Your task to perform on an android device: Search for good Greek restaurants Image 0: 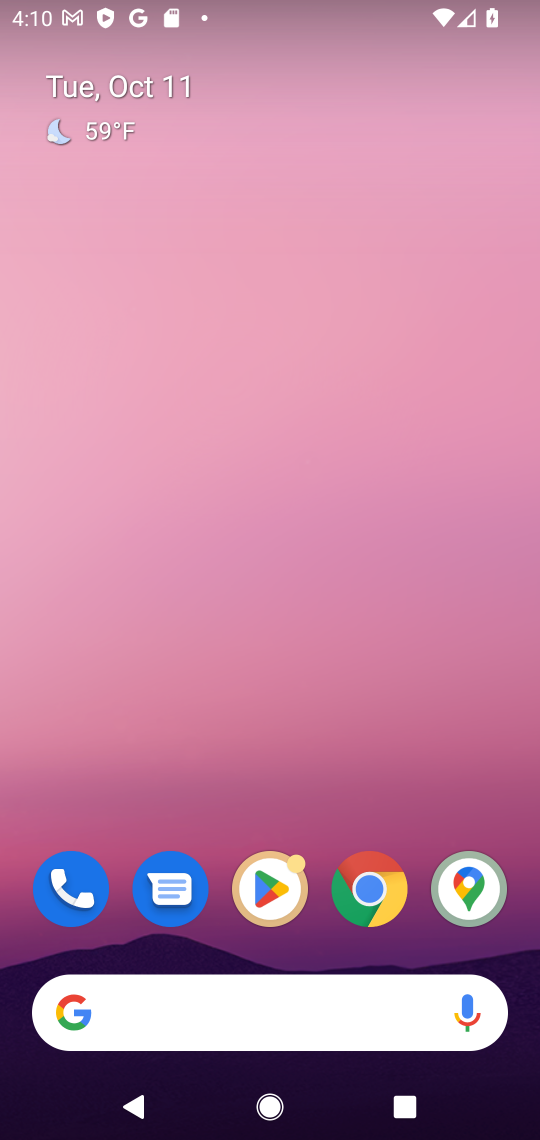
Step 0: click (249, 338)
Your task to perform on an android device: Search for good Greek restaurants Image 1: 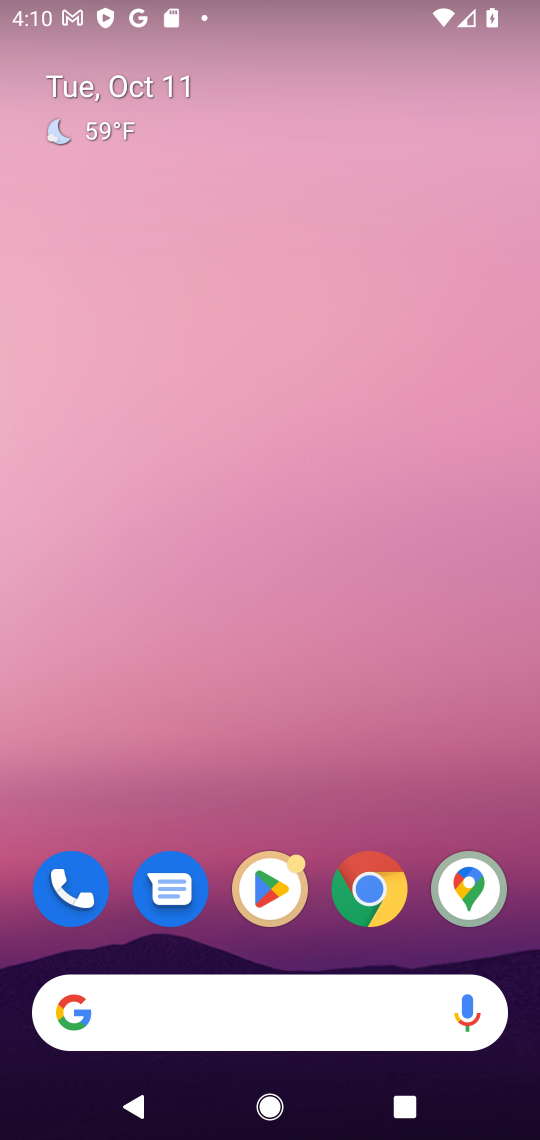
Step 1: click (273, 391)
Your task to perform on an android device: Search for good Greek restaurants Image 2: 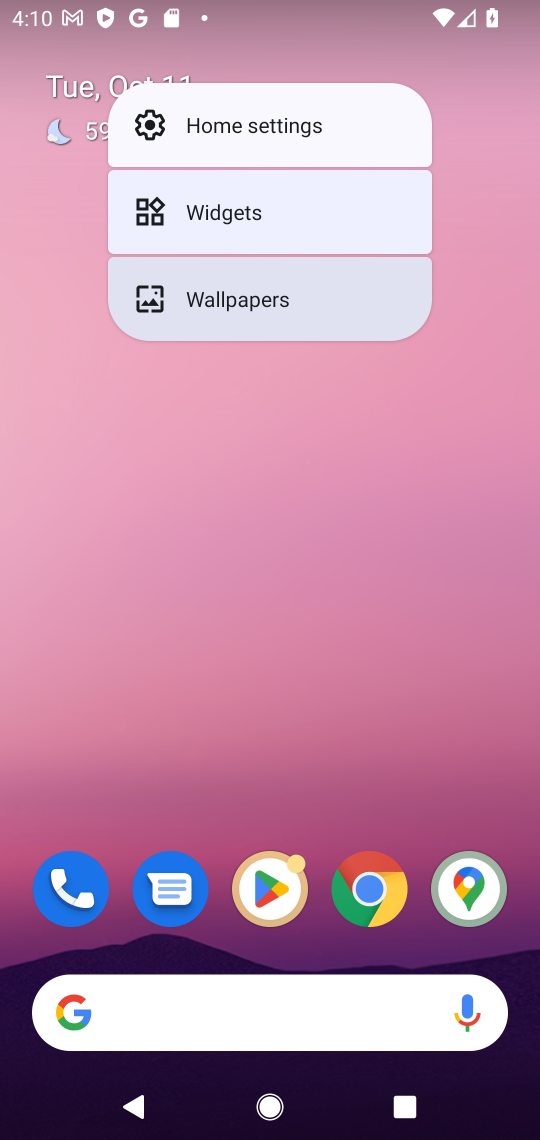
Step 2: click (291, 560)
Your task to perform on an android device: Search for good Greek restaurants Image 3: 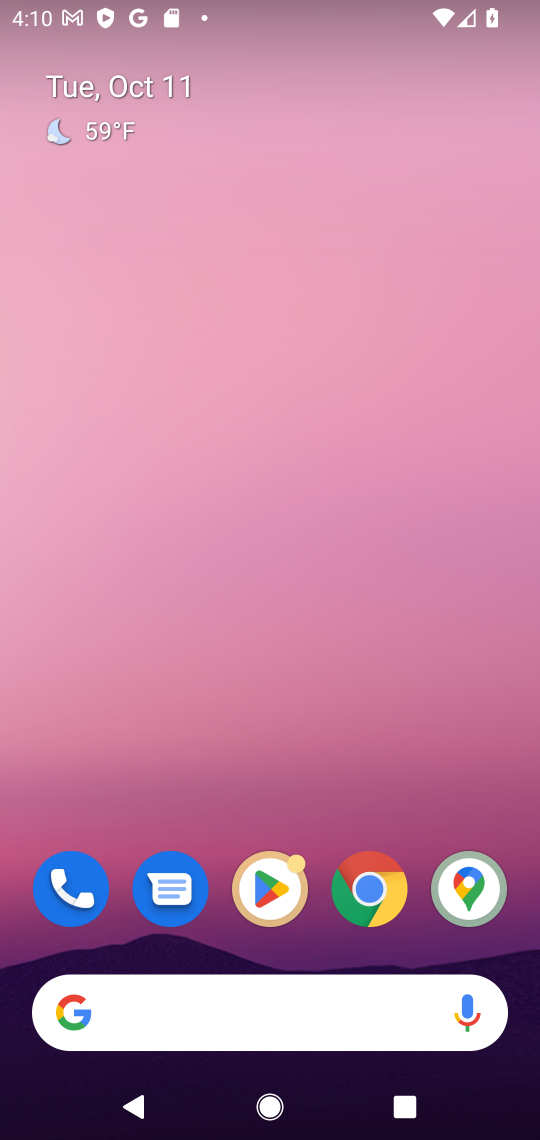
Step 3: drag from (247, 732) to (286, 236)
Your task to perform on an android device: Search for good Greek restaurants Image 4: 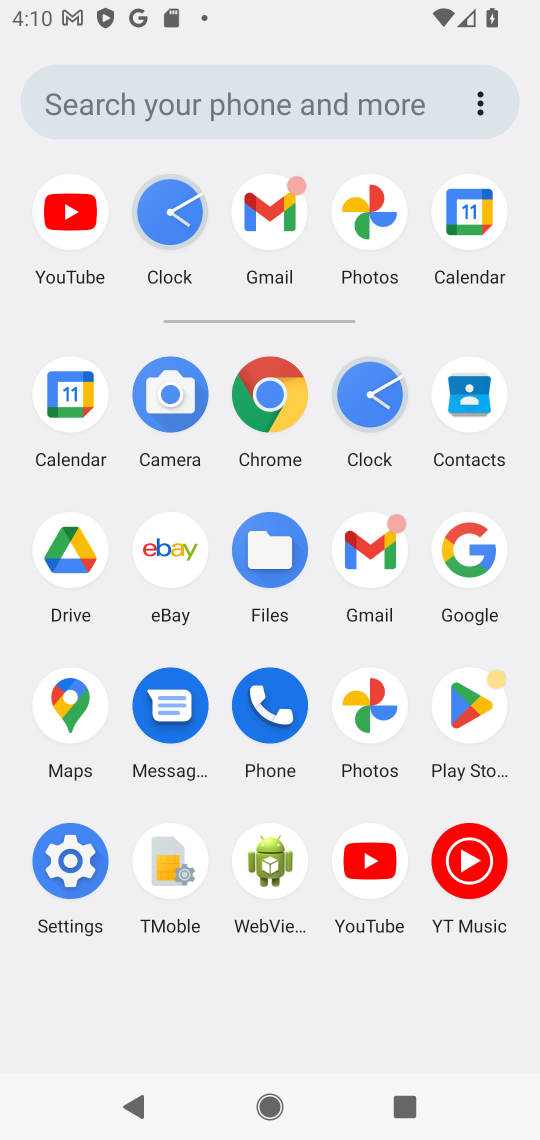
Step 4: click (462, 554)
Your task to perform on an android device: Search for good Greek restaurants Image 5: 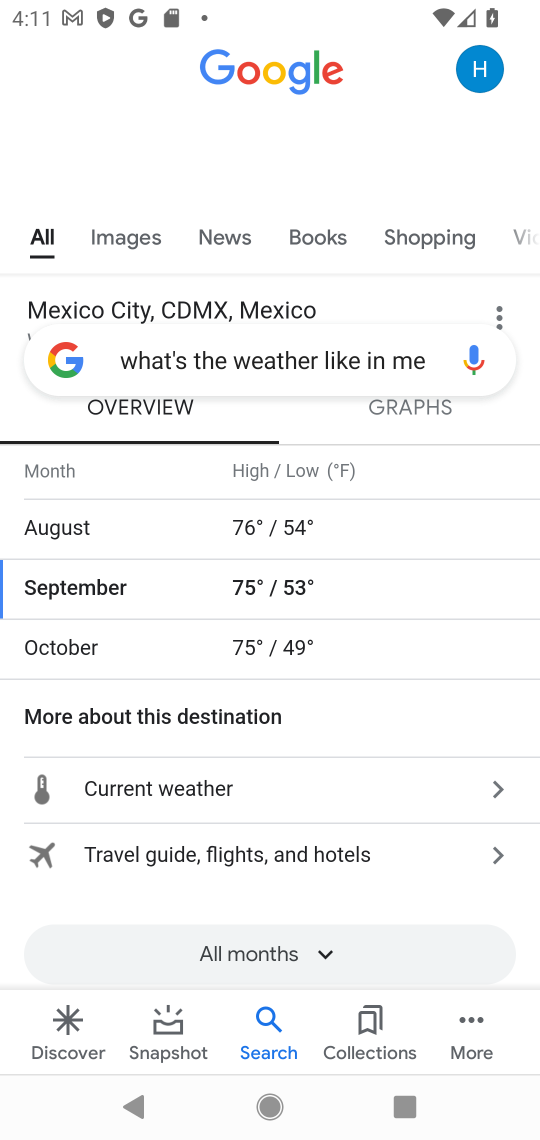
Step 5: click (381, 307)
Your task to perform on an android device: Search for good Greek restaurants Image 6: 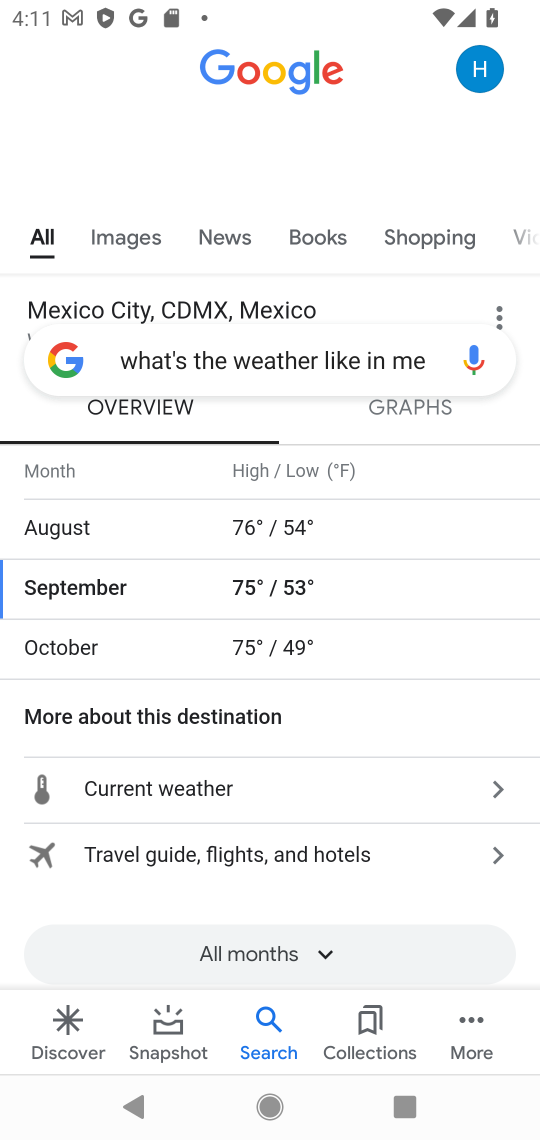
Step 6: click (374, 363)
Your task to perform on an android device: Search for good Greek restaurants Image 7: 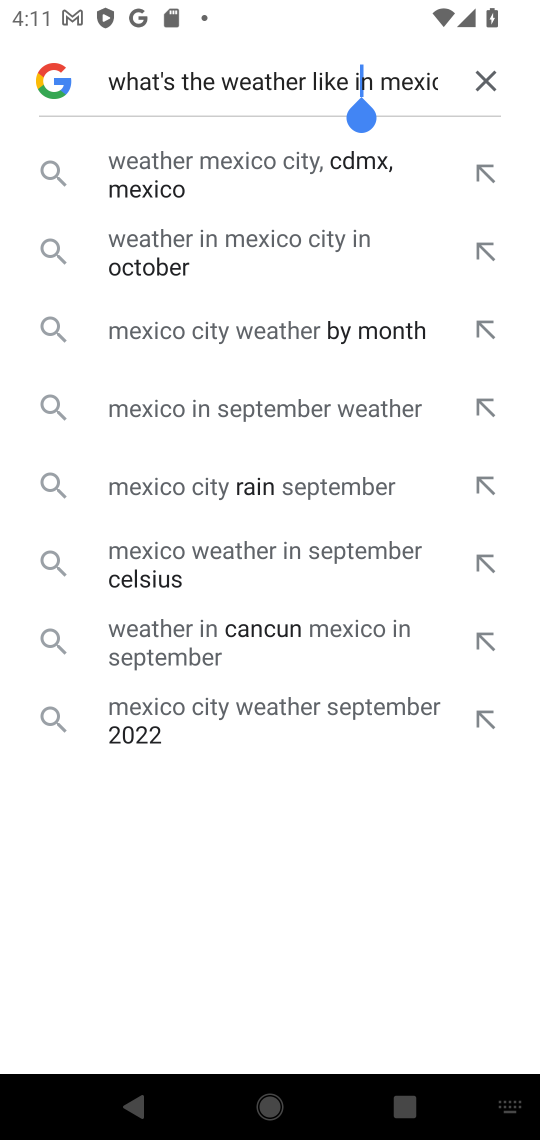
Step 7: click (473, 80)
Your task to perform on an android device: Search for good Greek restaurants Image 8: 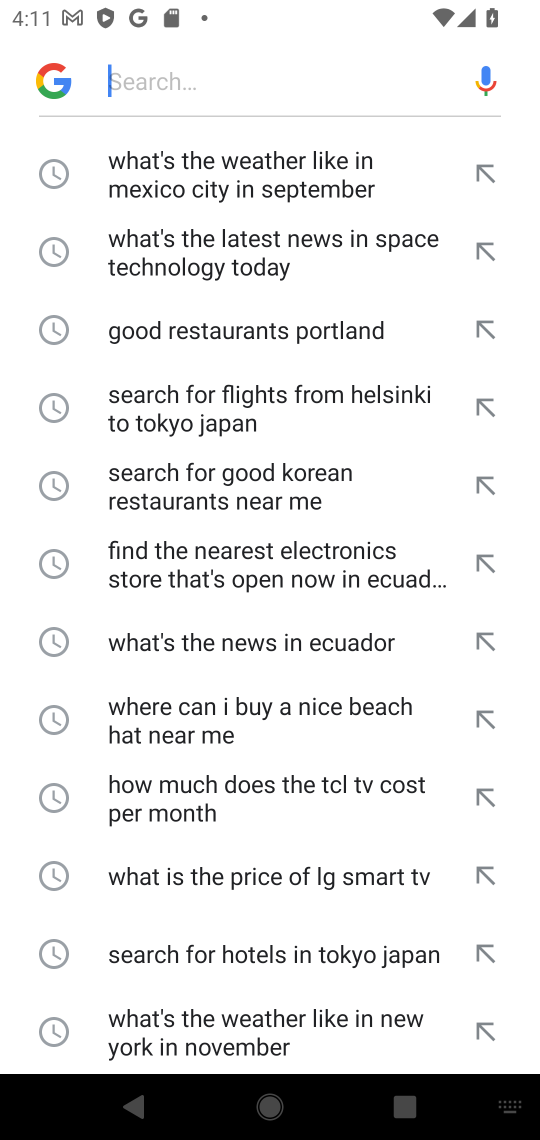
Step 8: click (244, 75)
Your task to perform on an android device: Search for good Greek restaurants Image 9: 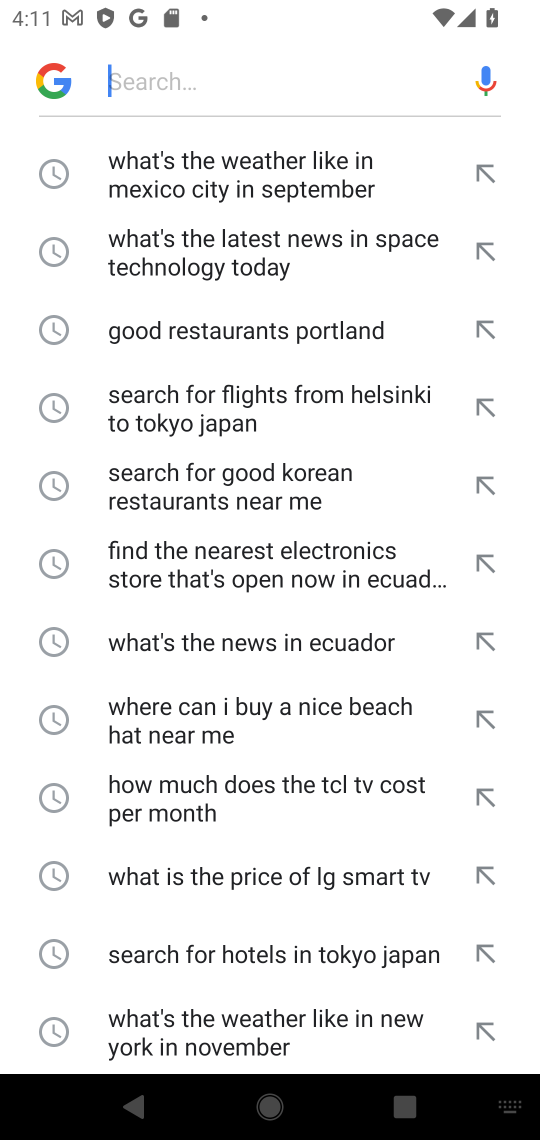
Step 9: type "Search for good Greek restaurants "
Your task to perform on an android device: Search for good Greek restaurants Image 10: 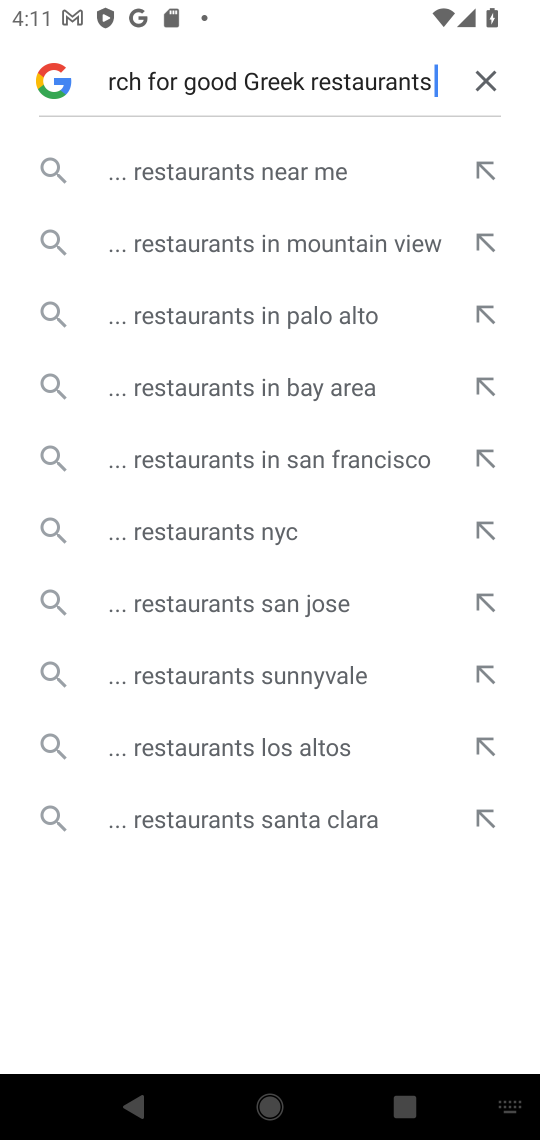
Step 10: click (327, 170)
Your task to perform on an android device: Search for good Greek restaurants Image 11: 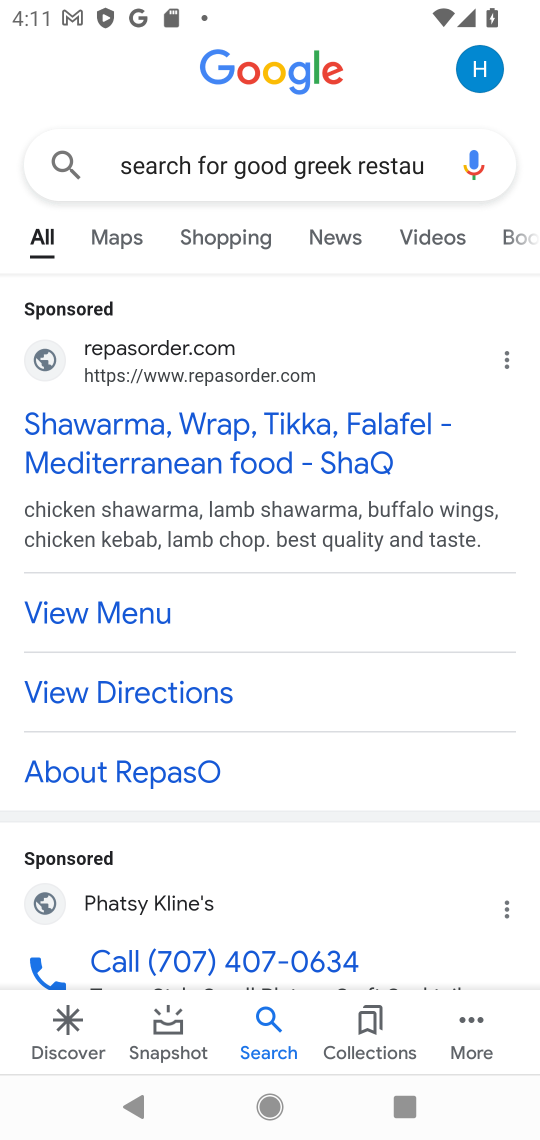
Step 11: click (297, 417)
Your task to perform on an android device: Search for good Greek restaurants Image 12: 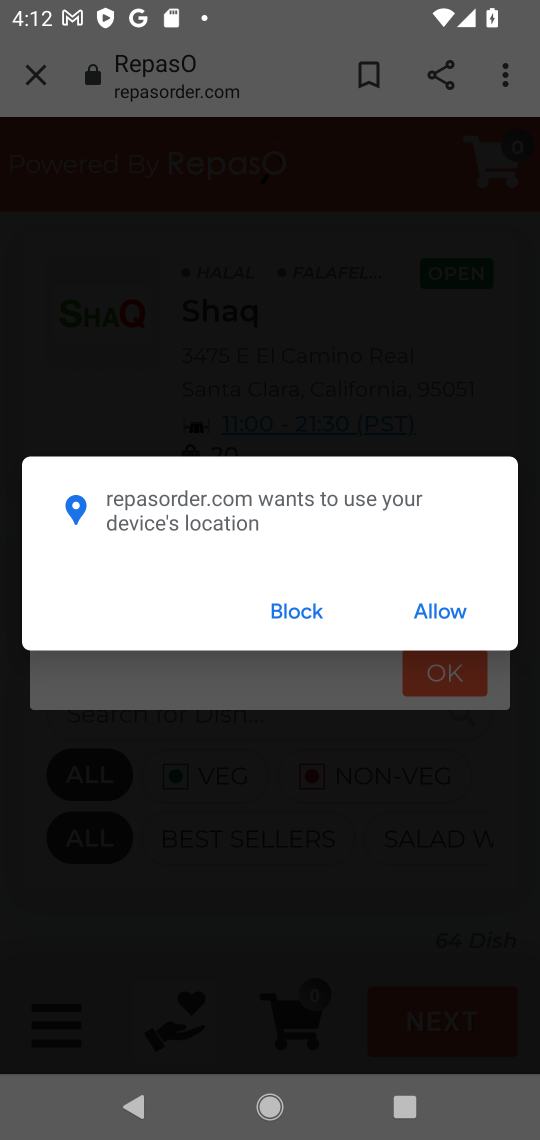
Step 12: click (451, 600)
Your task to perform on an android device: Search for good Greek restaurants Image 13: 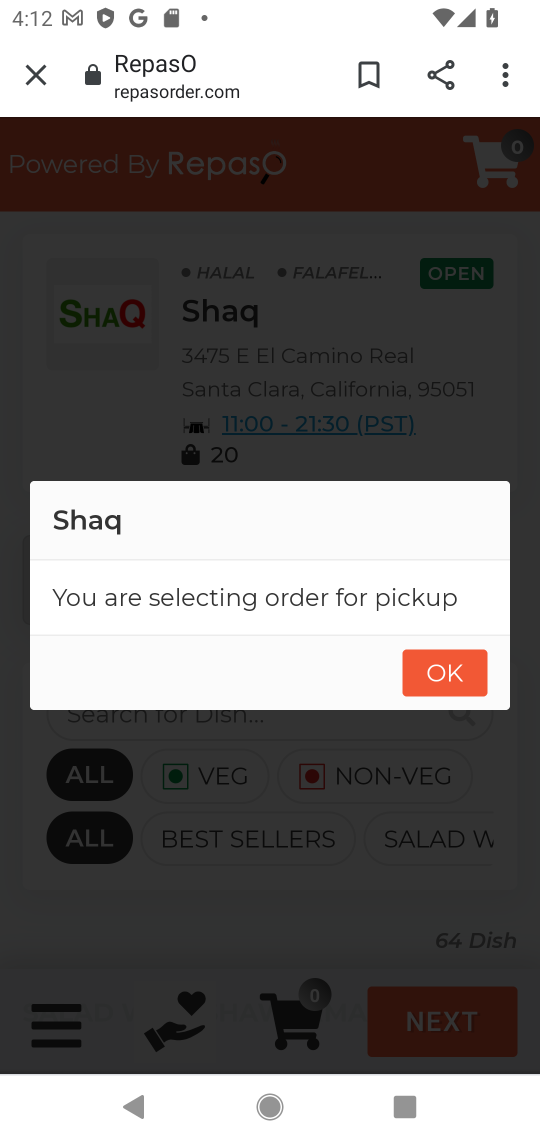
Step 13: click (435, 673)
Your task to perform on an android device: Search for good Greek restaurants Image 14: 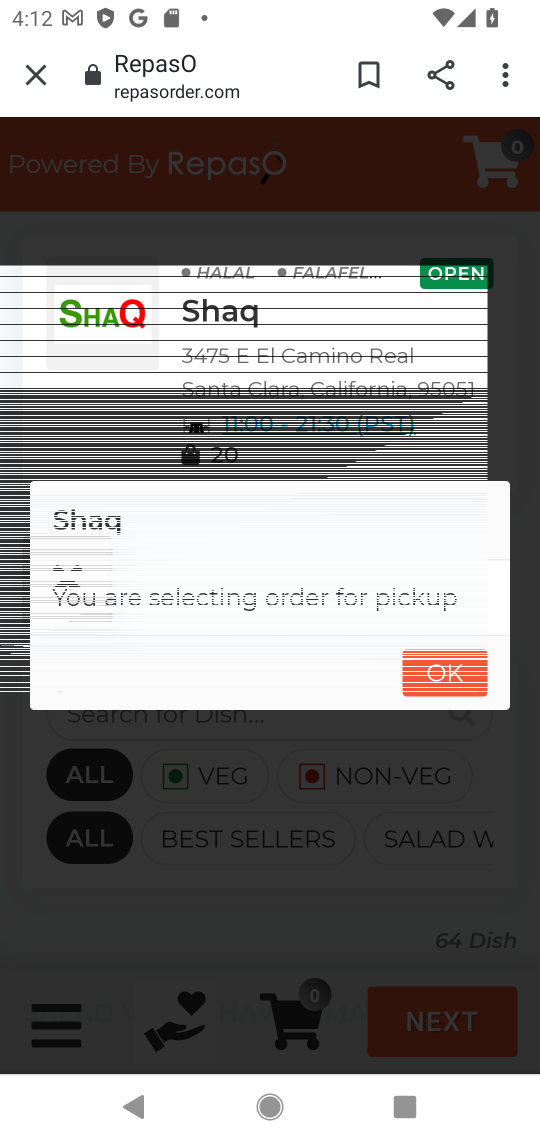
Step 14: click (443, 665)
Your task to perform on an android device: Search for good Greek restaurants Image 15: 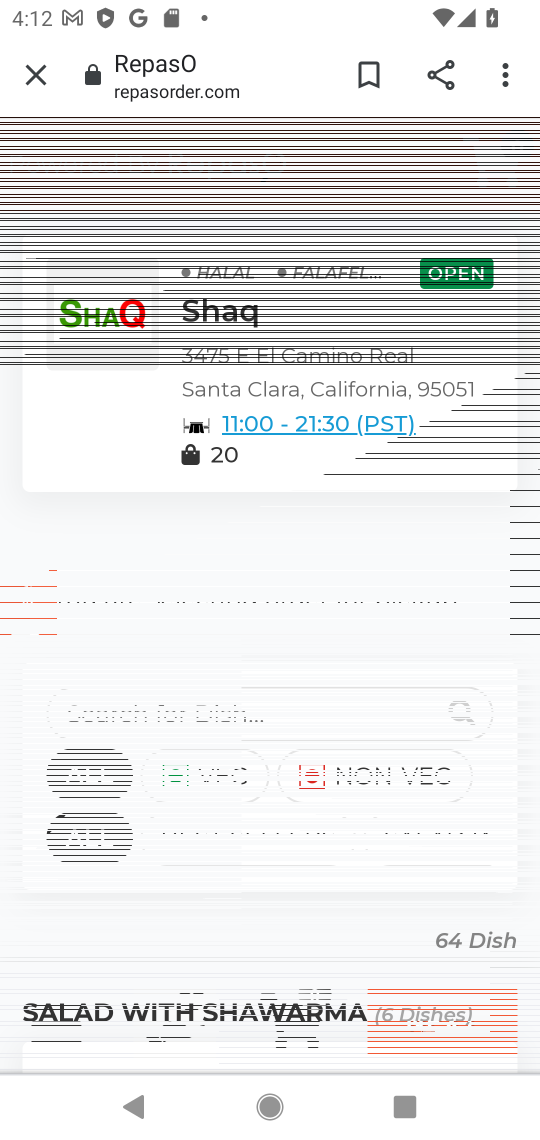
Step 15: task complete